Your task to perform on an android device: Clear the cart on ebay.com. Search for "rayovac triple a" on ebay.com, select the first entry, and add it to the cart. Image 0: 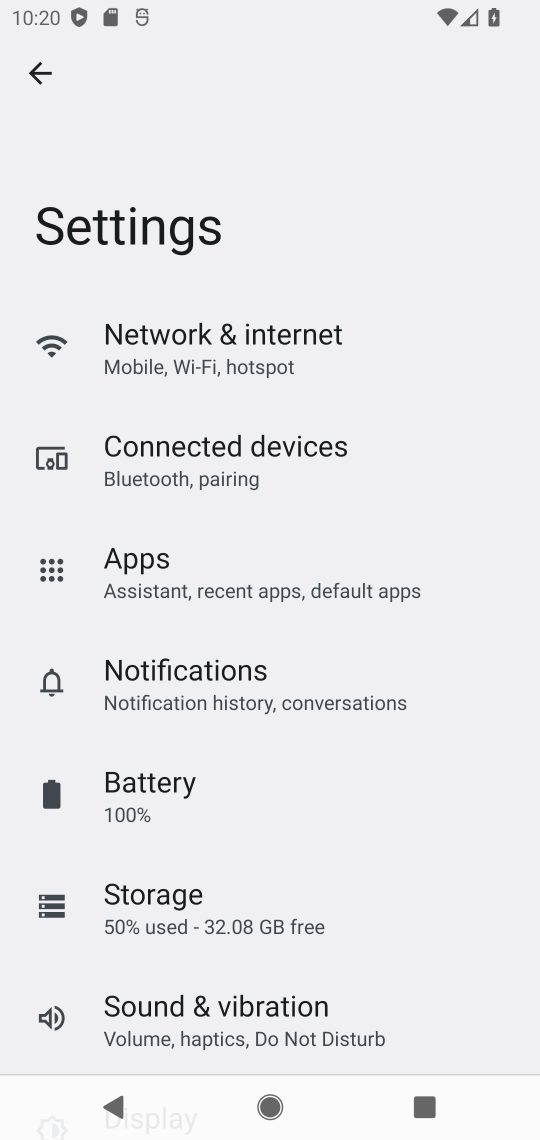
Step 0: press home button
Your task to perform on an android device: Clear the cart on ebay.com. Search for "rayovac triple a" on ebay.com, select the first entry, and add it to the cart. Image 1: 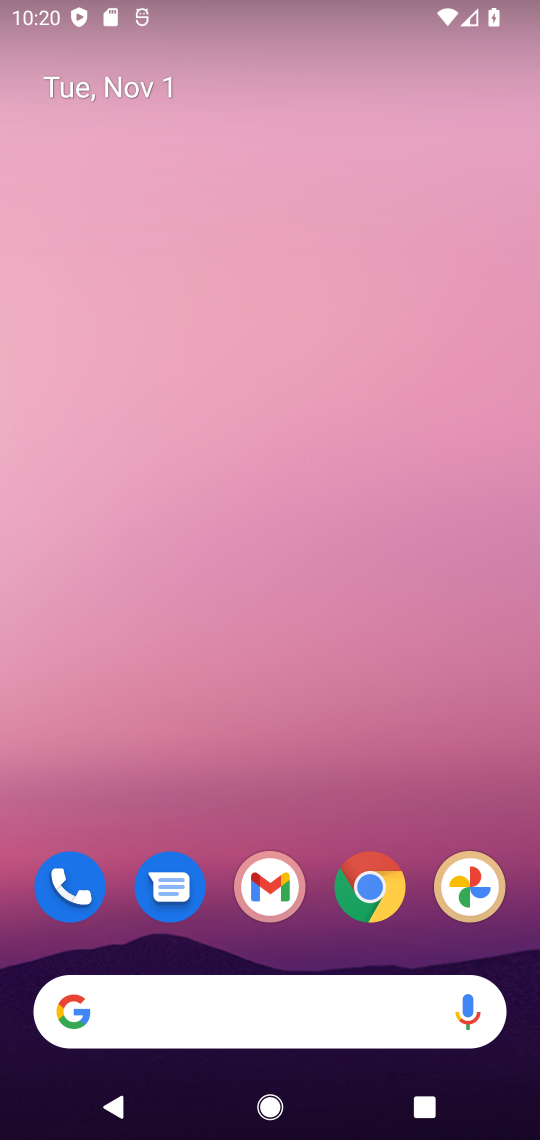
Step 1: click (378, 895)
Your task to perform on an android device: Clear the cart on ebay.com. Search for "rayovac triple a" on ebay.com, select the first entry, and add it to the cart. Image 2: 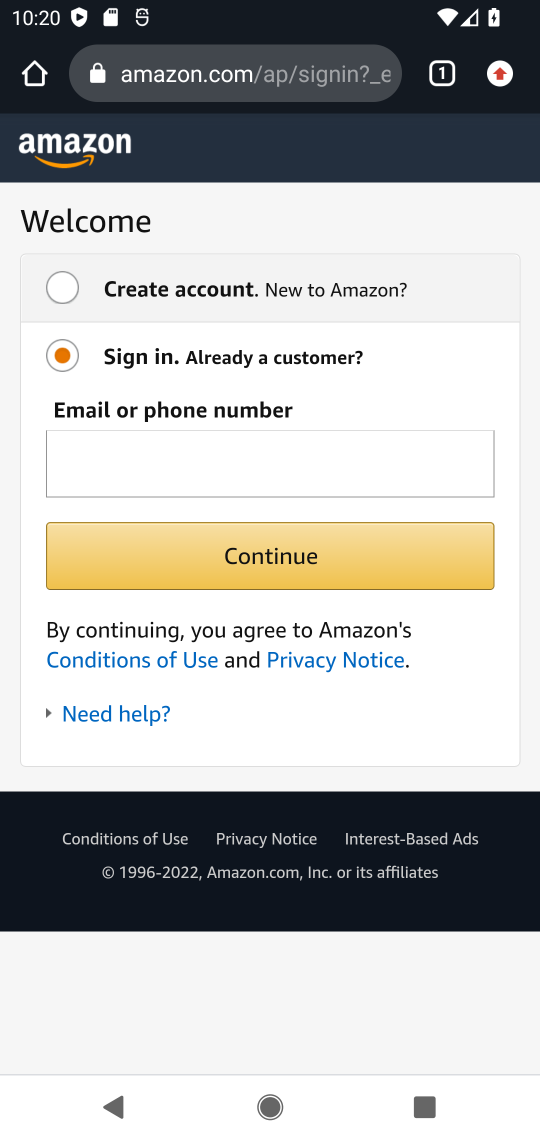
Step 2: click (297, 63)
Your task to perform on an android device: Clear the cart on ebay.com. Search for "rayovac triple a" on ebay.com, select the first entry, and add it to the cart. Image 3: 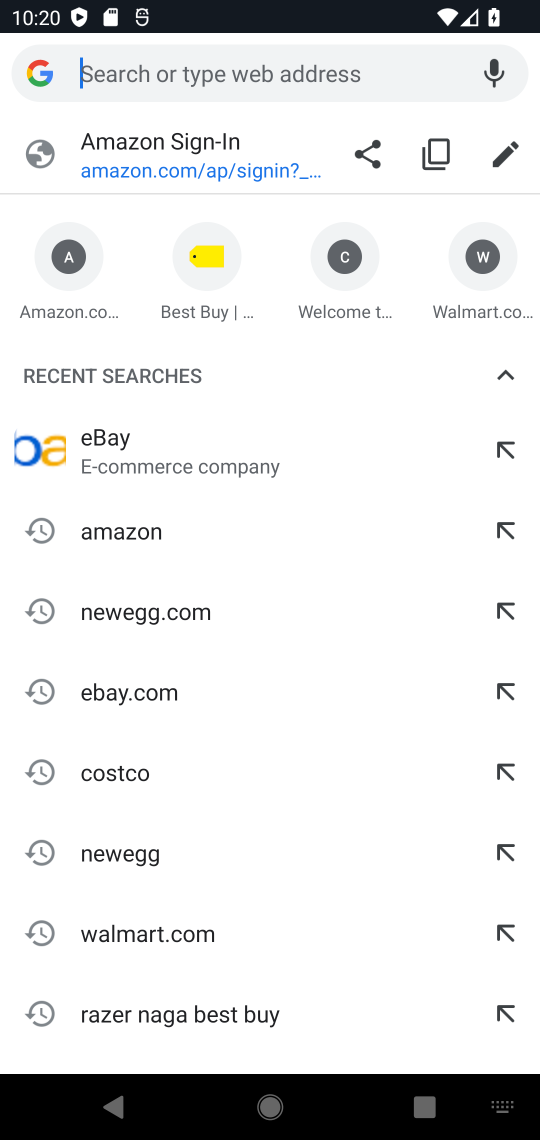
Step 3: type "ebay.com"
Your task to perform on an android device: Clear the cart on ebay.com. Search for "rayovac triple a" on ebay.com, select the first entry, and add it to the cart. Image 4: 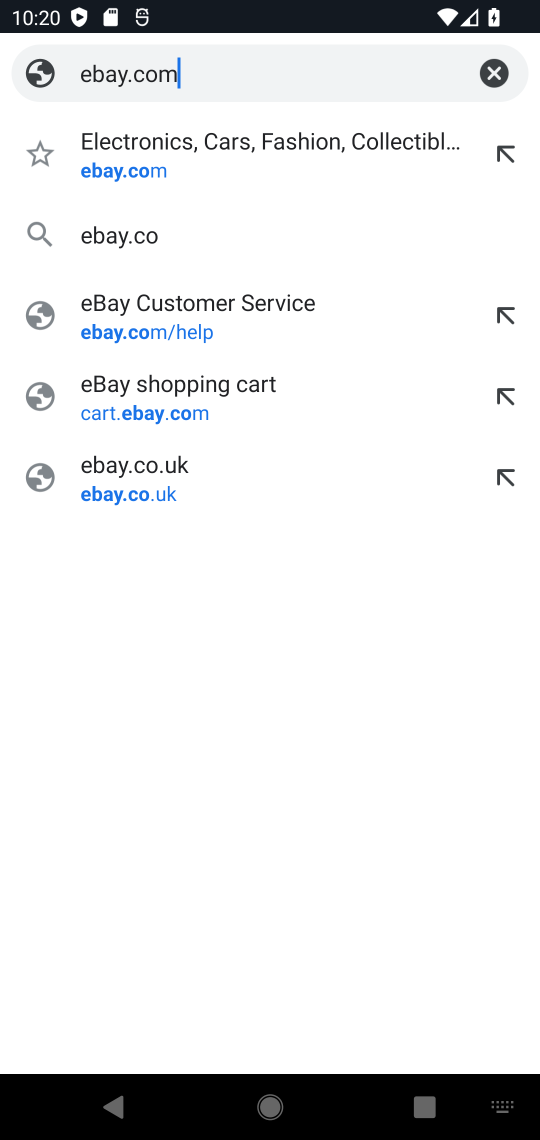
Step 4: press enter
Your task to perform on an android device: Clear the cart on ebay.com. Search for "rayovac triple a" on ebay.com, select the first entry, and add it to the cart. Image 5: 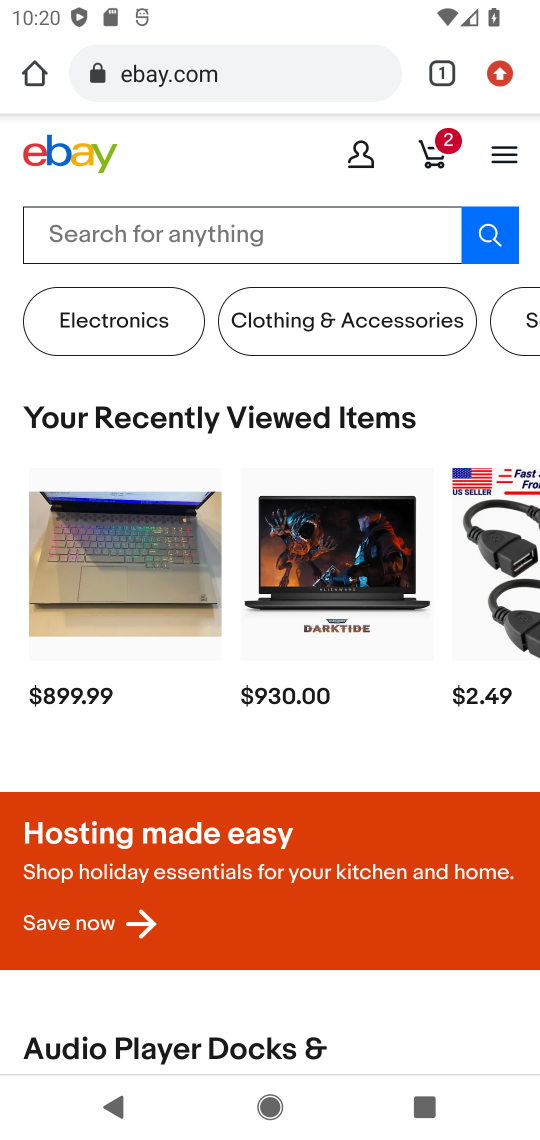
Step 5: click (431, 156)
Your task to perform on an android device: Clear the cart on ebay.com. Search for "rayovac triple a" on ebay.com, select the first entry, and add it to the cart. Image 6: 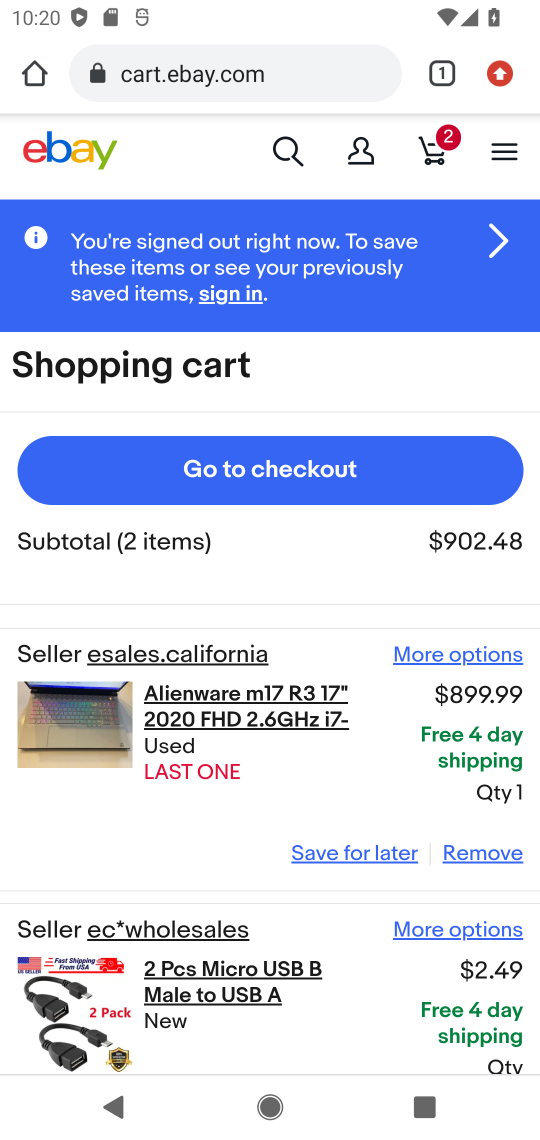
Step 6: click (438, 161)
Your task to perform on an android device: Clear the cart on ebay.com. Search for "rayovac triple a" on ebay.com, select the first entry, and add it to the cart. Image 7: 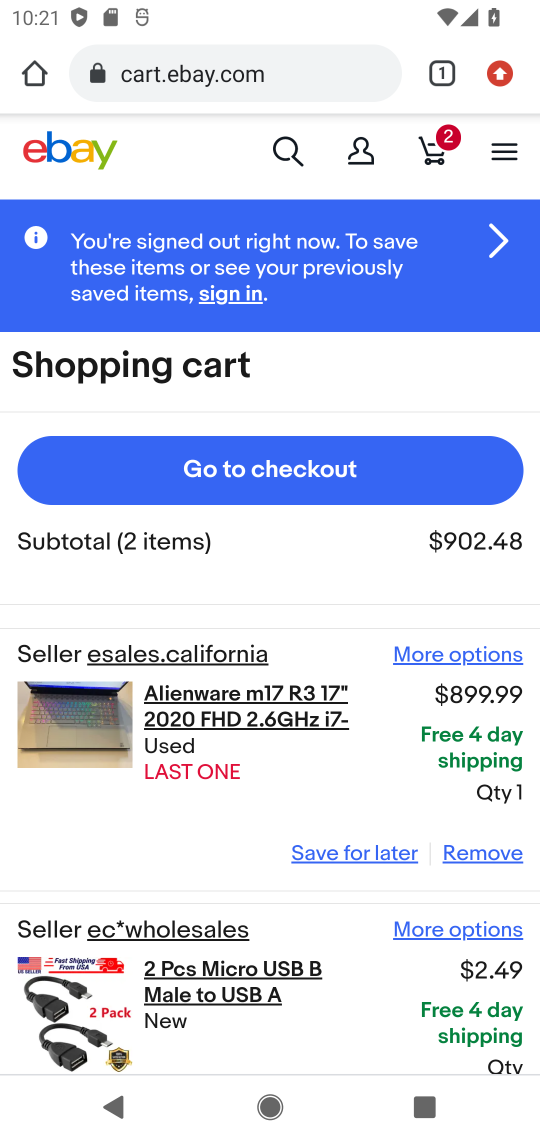
Step 7: click (474, 853)
Your task to perform on an android device: Clear the cart on ebay.com. Search for "rayovac triple a" on ebay.com, select the first entry, and add it to the cart. Image 8: 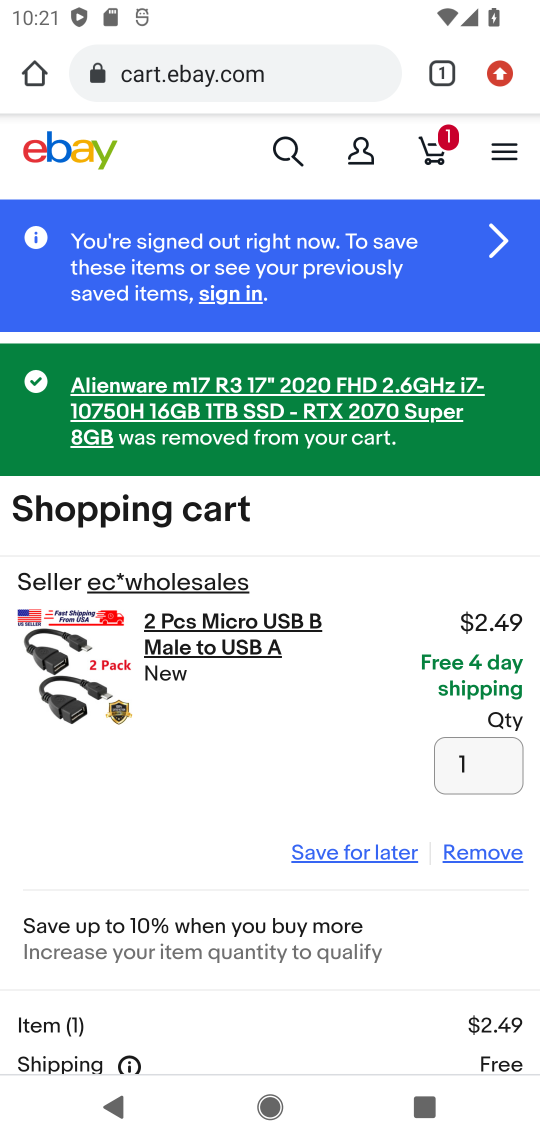
Step 8: click (477, 842)
Your task to perform on an android device: Clear the cart on ebay.com. Search for "rayovac triple a" on ebay.com, select the first entry, and add it to the cart. Image 9: 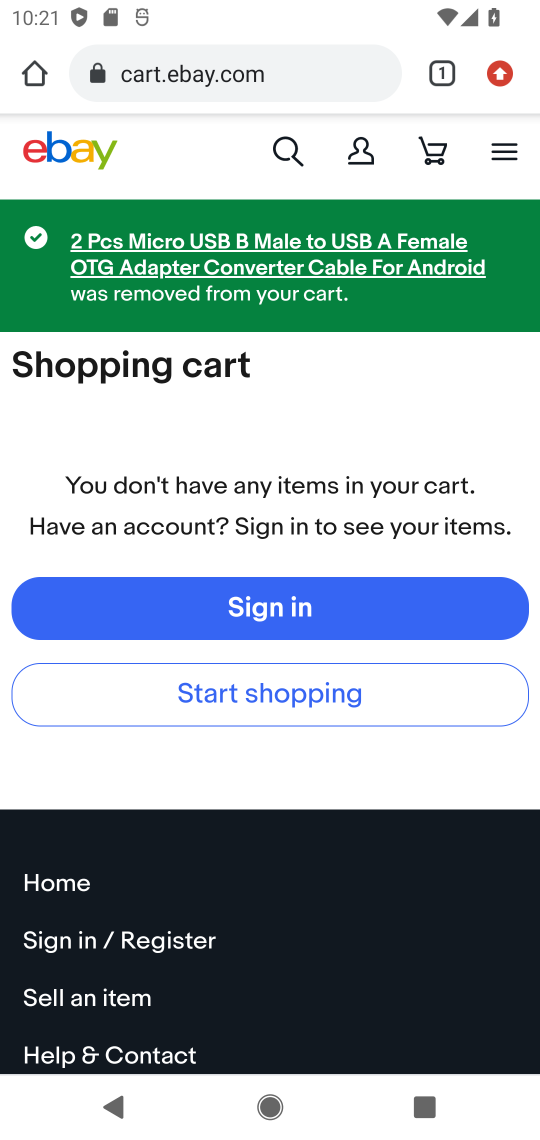
Step 9: click (280, 136)
Your task to perform on an android device: Clear the cart on ebay.com. Search for "rayovac triple a" on ebay.com, select the first entry, and add it to the cart. Image 10: 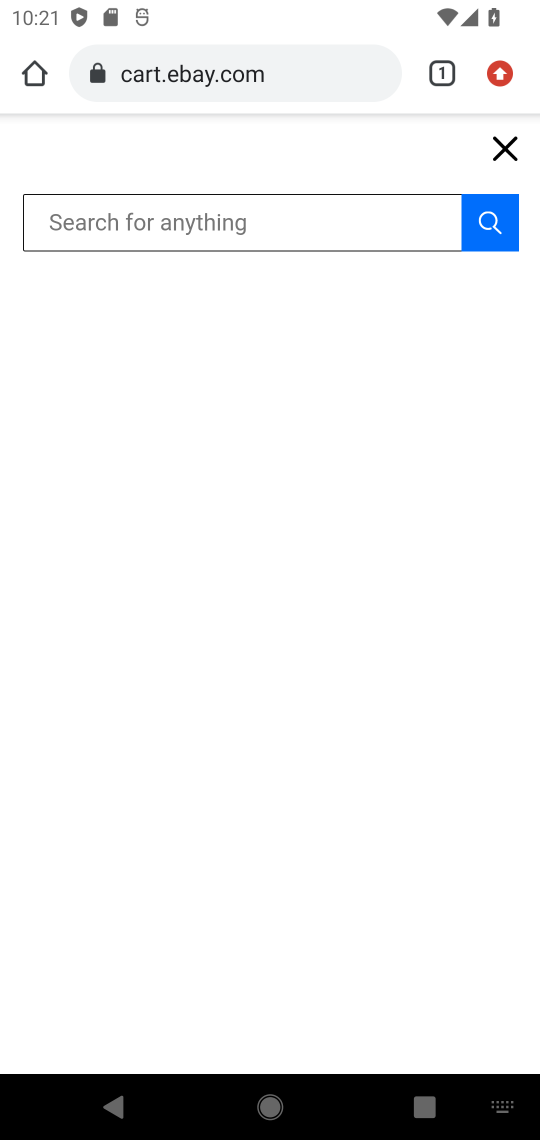
Step 10: type "rayovac triple a"
Your task to perform on an android device: Clear the cart on ebay.com. Search for "rayovac triple a" on ebay.com, select the first entry, and add it to the cart. Image 11: 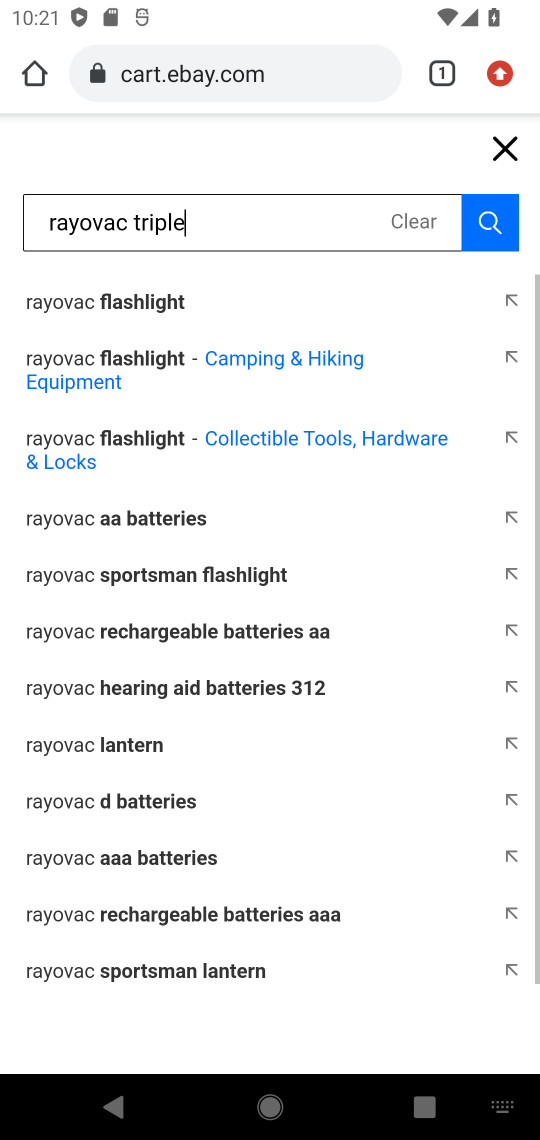
Step 11: press enter
Your task to perform on an android device: Clear the cart on ebay.com. Search for "rayovac triple a" on ebay.com, select the first entry, and add it to the cart. Image 12: 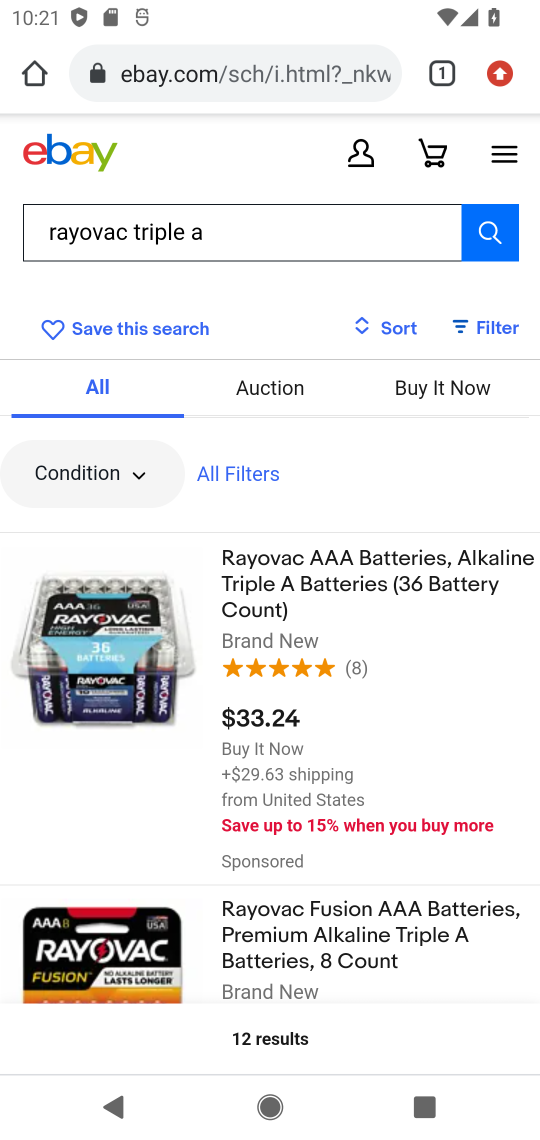
Step 12: click (72, 708)
Your task to perform on an android device: Clear the cart on ebay.com. Search for "rayovac triple a" on ebay.com, select the first entry, and add it to the cart. Image 13: 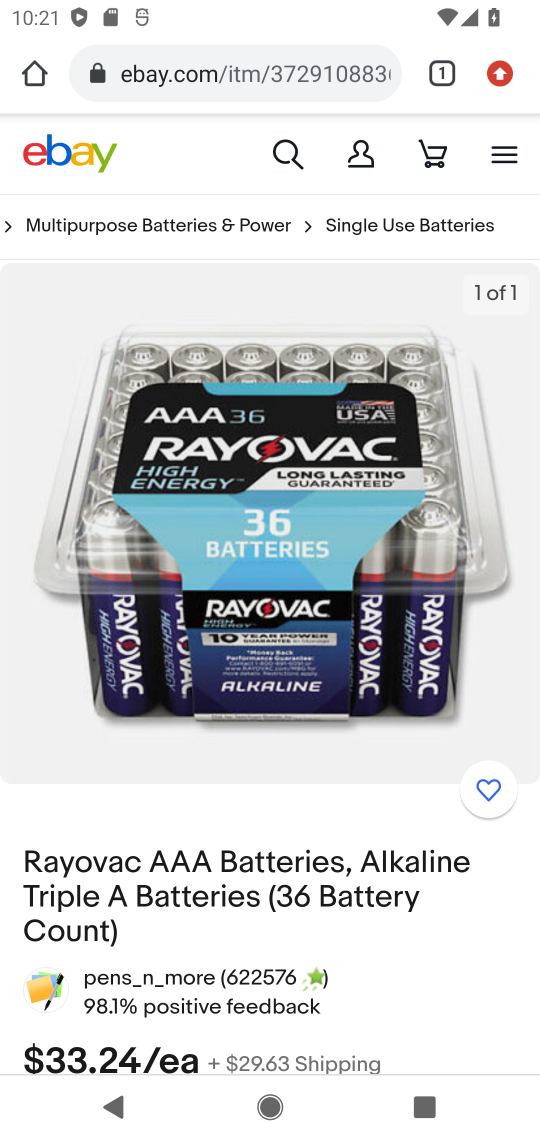
Step 13: drag from (363, 929) to (465, 541)
Your task to perform on an android device: Clear the cart on ebay.com. Search for "rayovac triple a" on ebay.com, select the first entry, and add it to the cart. Image 14: 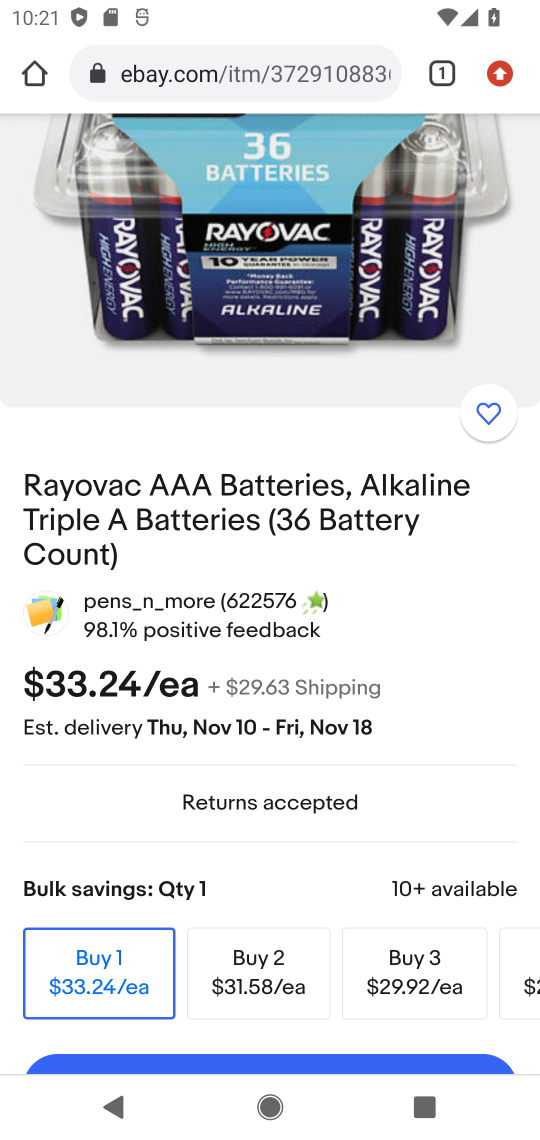
Step 14: drag from (320, 879) to (409, 563)
Your task to perform on an android device: Clear the cart on ebay.com. Search for "rayovac triple a" on ebay.com, select the first entry, and add it to the cart. Image 15: 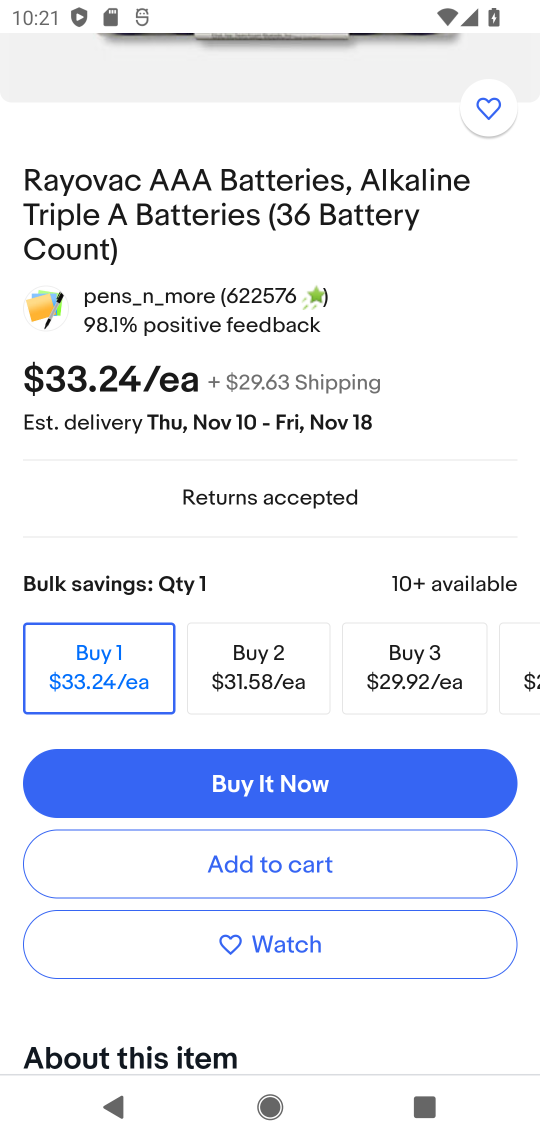
Step 15: click (328, 866)
Your task to perform on an android device: Clear the cart on ebay.com. Search for "rayovac triple a" on ebay.com, select the first entry, and add it to the cart. Image 16: 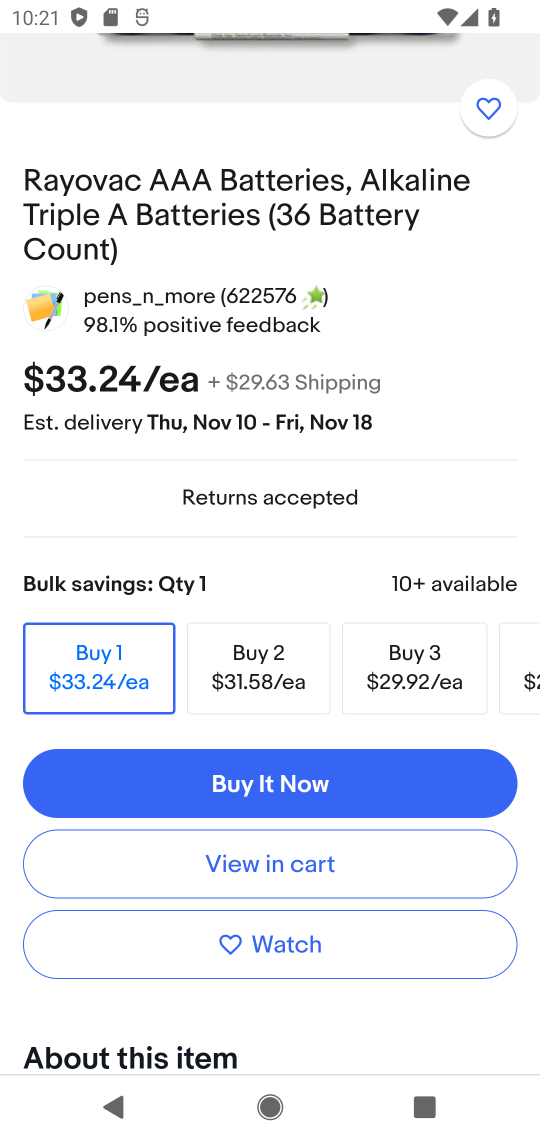
Step 16: click (290, 850)
Your task to perform on an android device: Clear the cart on ebay.com. Search for "rayovac triple a" on ebay.com, select the first entry, and add it to the cart. Image 17: 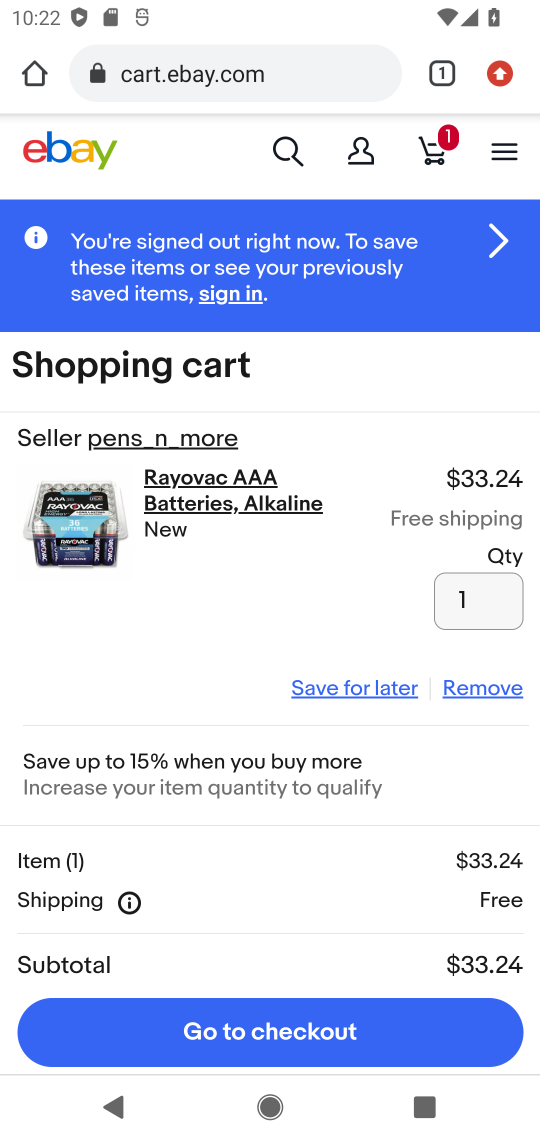
Step 17: task complete